Your task to perform on an android device: Open battery settings Image 0: 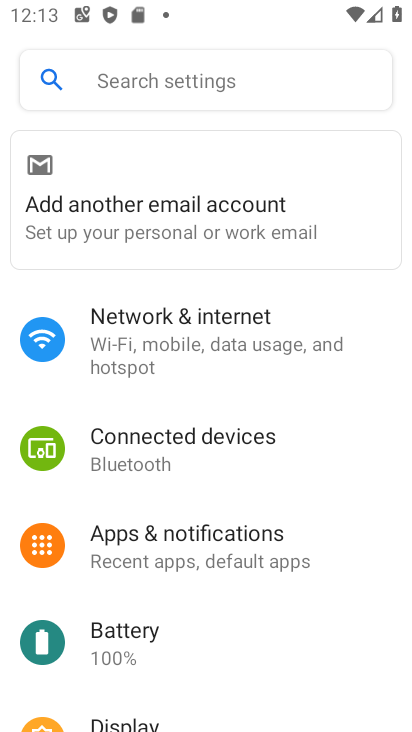
Step 0: click (111, 633)
Your task to perform on an android device: Open battery settings Image 1: 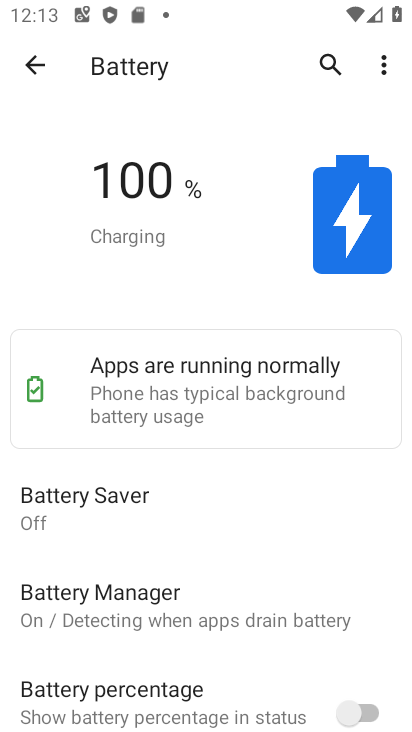
Step 1: task complete